Your task to perform on an android device: When is my next appointment? Image 0: 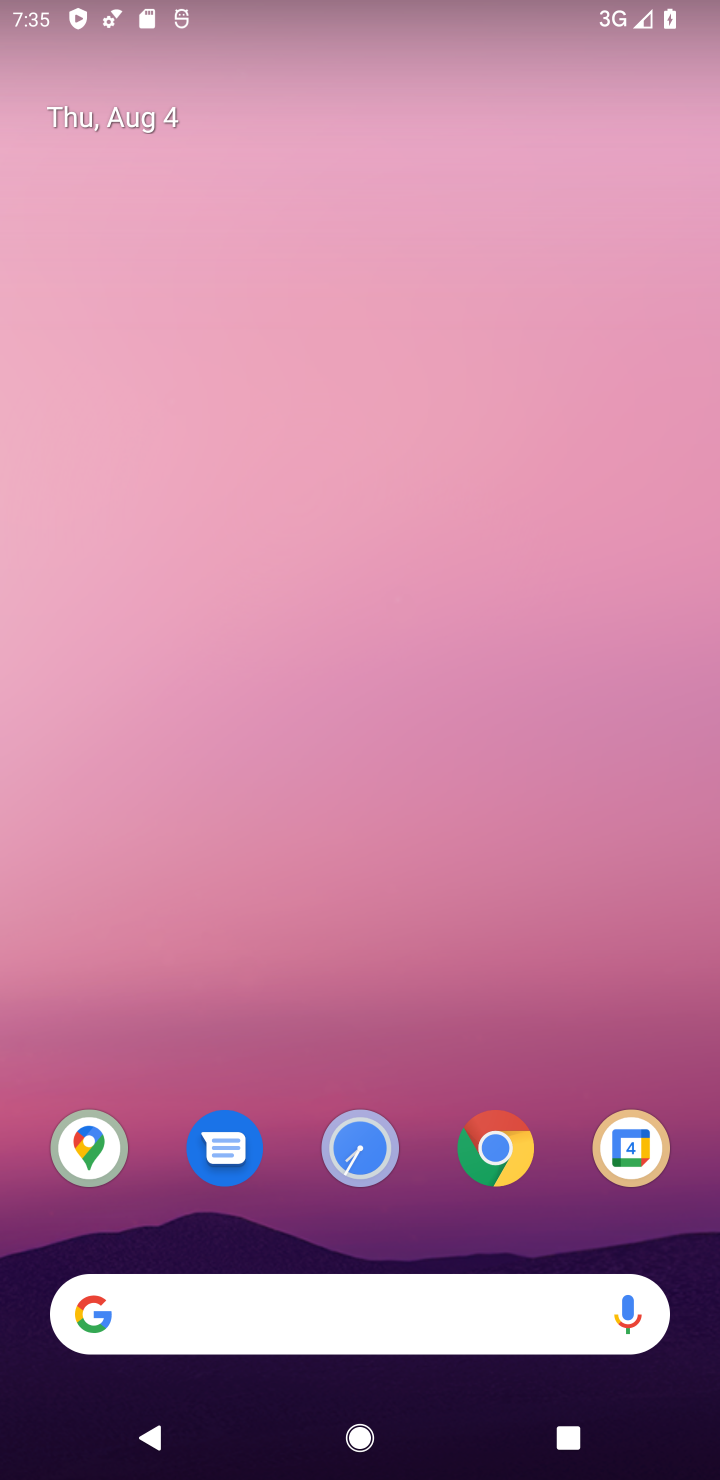
Step 0: click (552, 1106)
Your task to perform on an android device: When is my next appointment? Image 1: 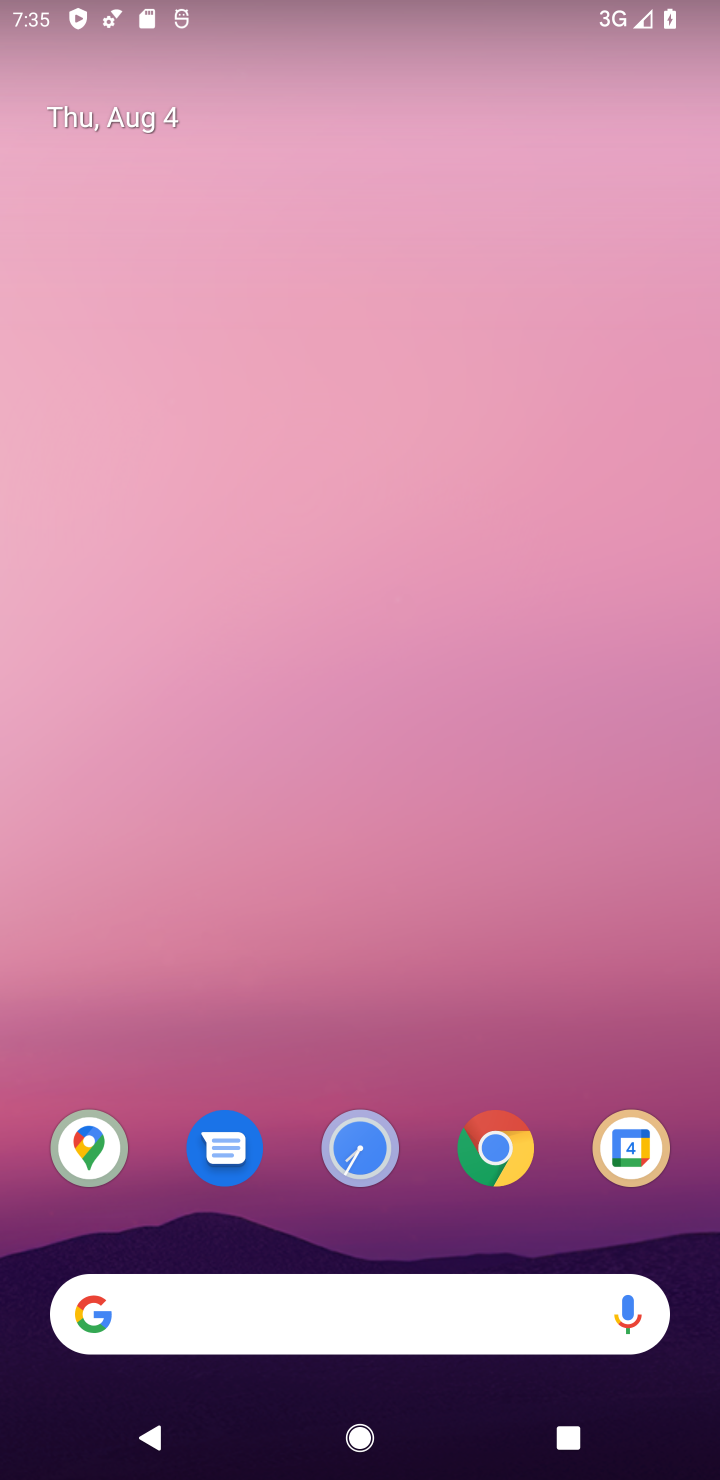
Step 1: click (658, 1148)
Your task to perform on an android device: When is my next appointment? Image 2: 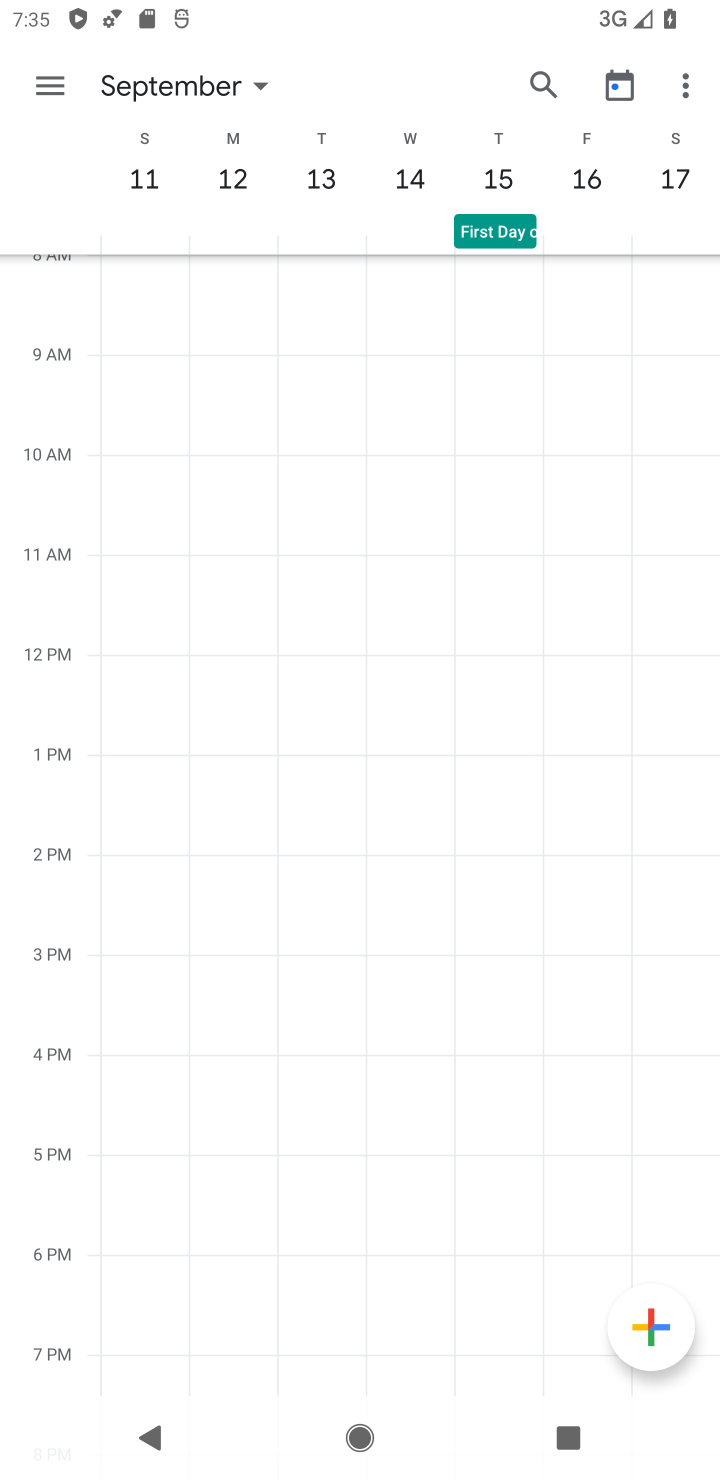
Step 2: click (62, 86)
Your task to perform on an android device: When is my next appointment? Image 3: 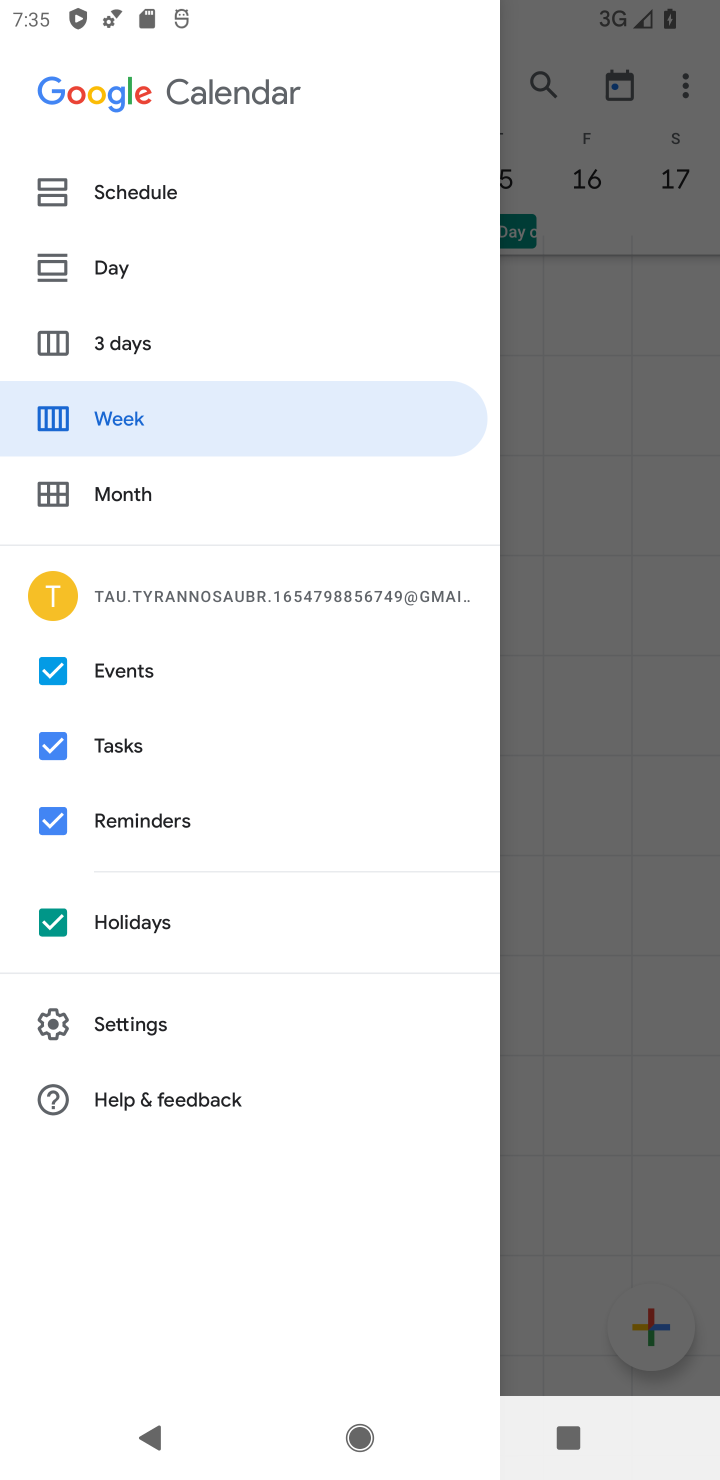
Step 3: click (127, 187)
Your task to perform on an android device: When is my next appointment? Image 4: 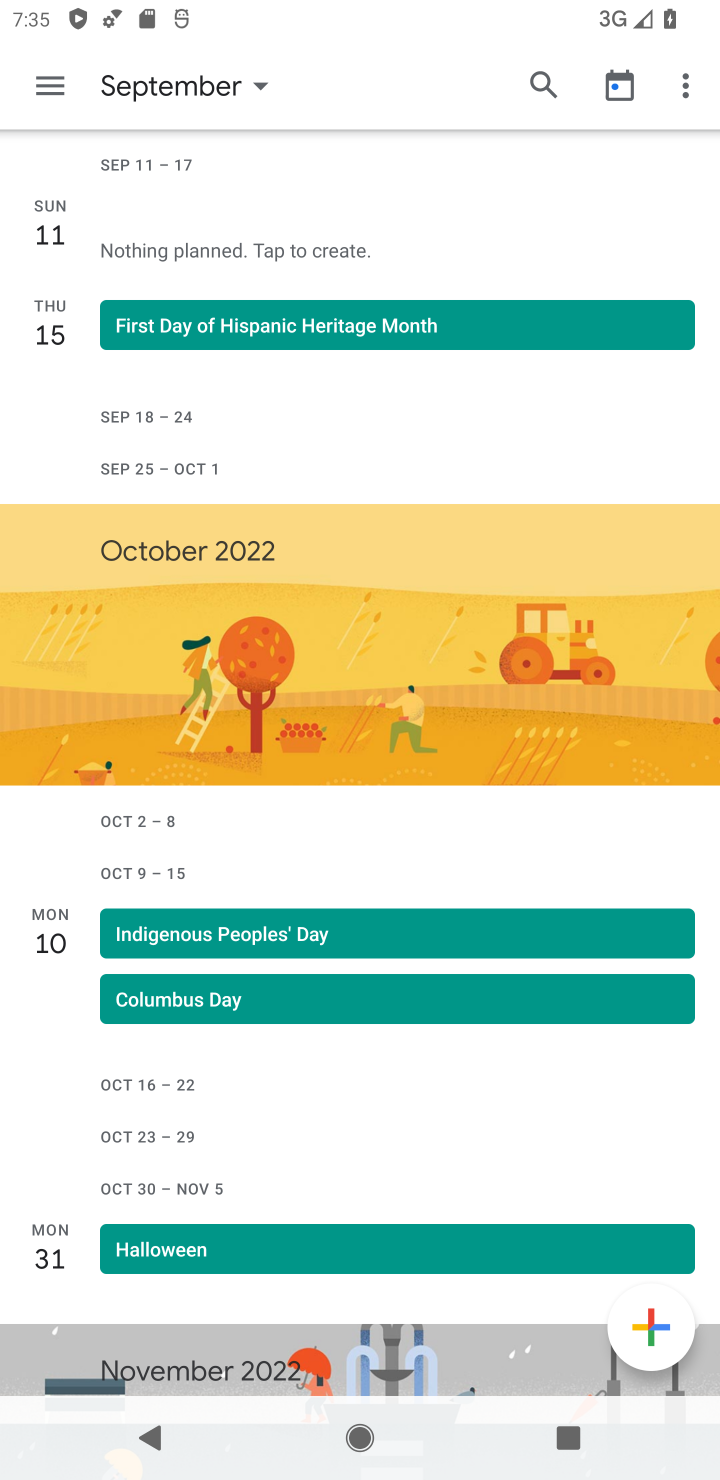
Step 4: task complete